Your task to perform on an android device: turn vacation reply on in the gmail app Image 0: 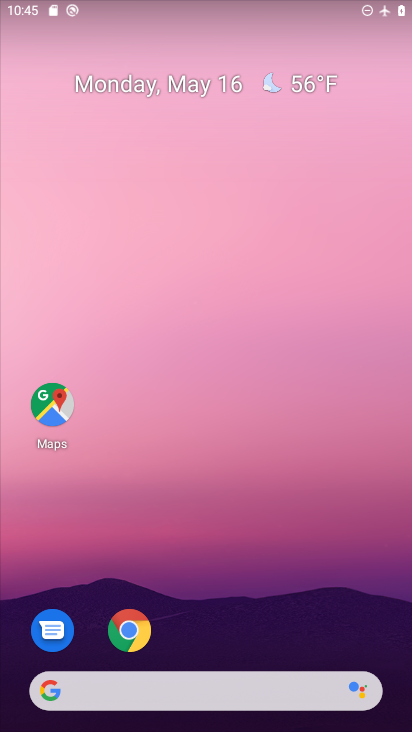
Step 0: drag from (303, 630) to (237, 51)
Your task to perform on an android device: turn vacation reply on in the gmail app Image 1: 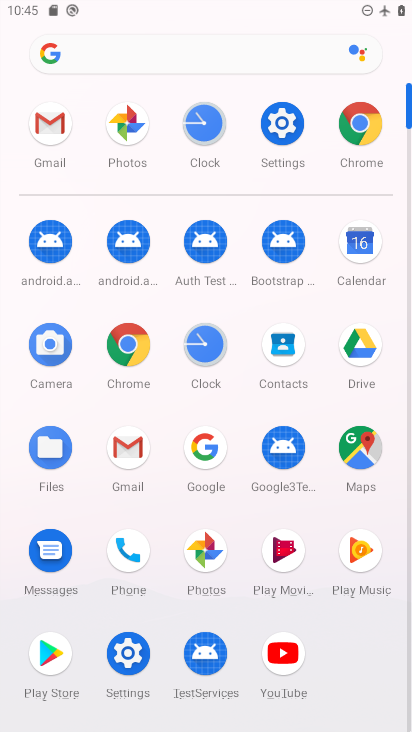
Step 1: click (64, 121)
Your task to perform on an android device: turn vacation reply on in the gmail app Image 2: 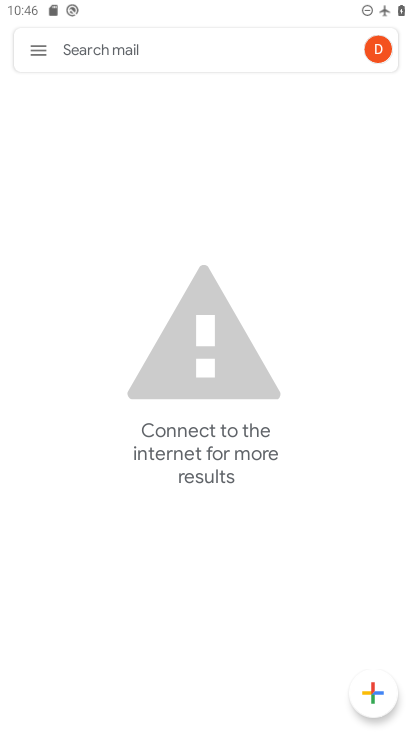
Step 2: click (38, 44)
Your task to perform on an android device: turn vacation reply on in the gmail app Image 3: 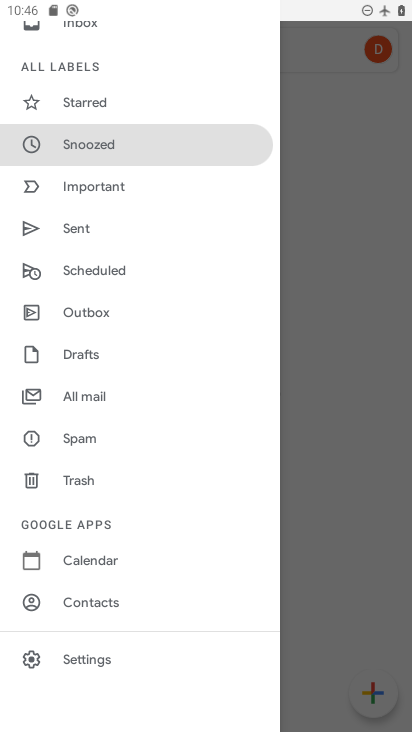
Step 3: click (83, 662)
Your task to perform on an android device: turn vacation reply on in the gmail app Image 4: 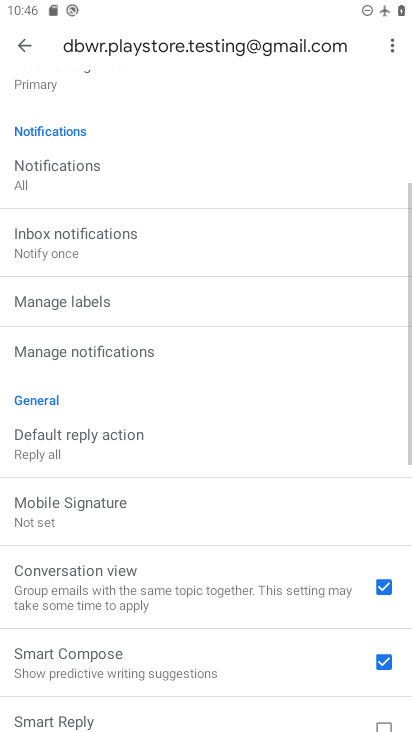
Step 4: drag from (214, 540) to (227, 276)
Your task to perform on an android device: turn vacation reply on in the gmail app Image 5: 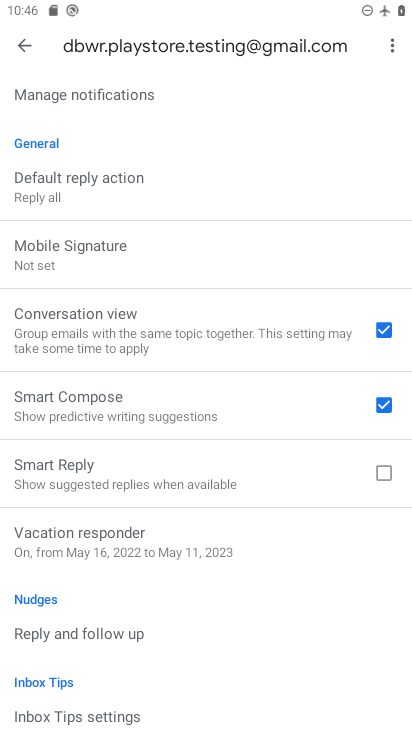
Step 5: click (180, 538)
Your task to perform on an android device: turn vacation reply on in the gmail app Image 6: 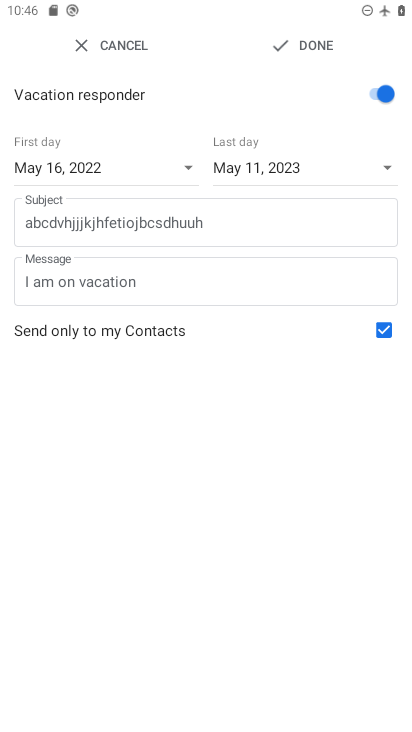
Step 6: task complete